Your task to perform on an android device: change the clock display to show seconds Image 0: 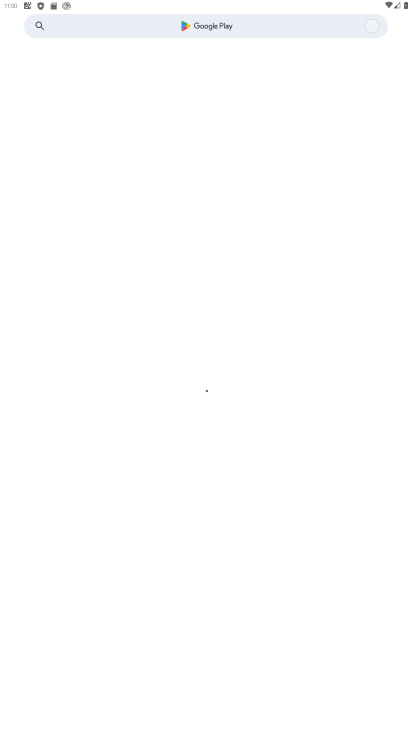
Step 0: press home button
Your task to perform on an android device: change the clock display to show seconds Image 1: 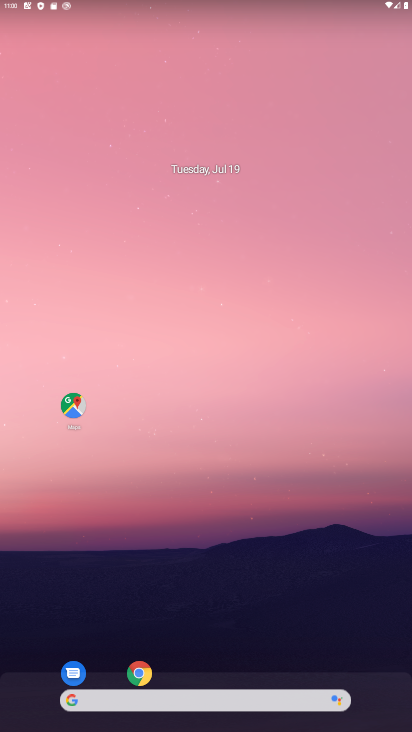
Step 1: drag from (264, 615) to (294, 102)
Your task to perform on an android device: change the clock display to show seconds Image 2: 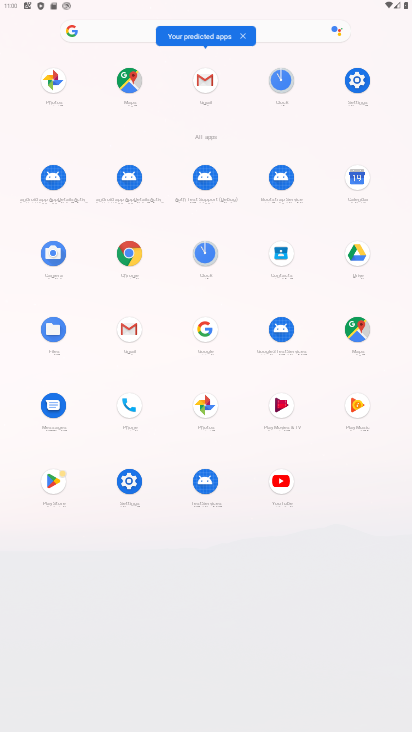
Step 2: click (205, 252)
Your task to perform on an android device: change the clock display to show seconds Image 3: 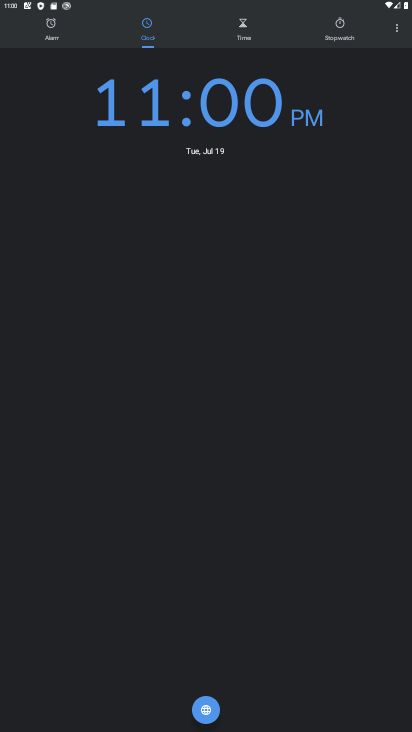
Step 3: click (396, 37)
Your task to perform on an android device: change the clock display to show seconds Image 4: 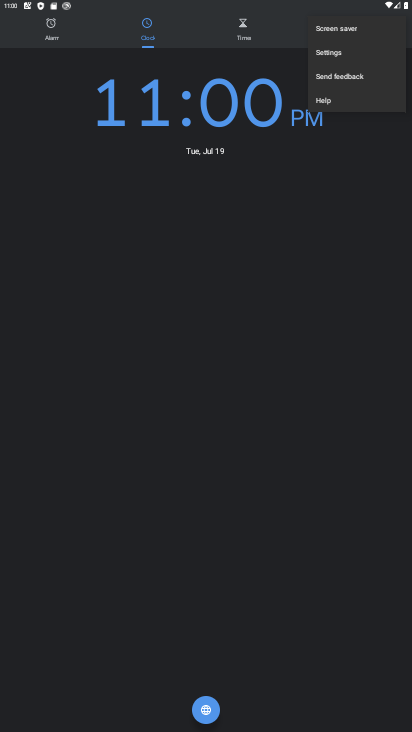
Step 4: click (334, 59)
Your task to perform on an android device: change the clock display to show seconds Image 5: 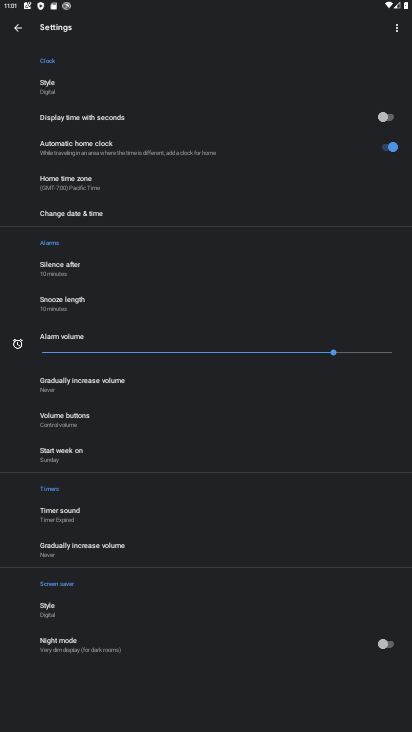
Step 5: click (384, 121)
Your task to perform on an android device: change the clock display to show seconds Image 6: 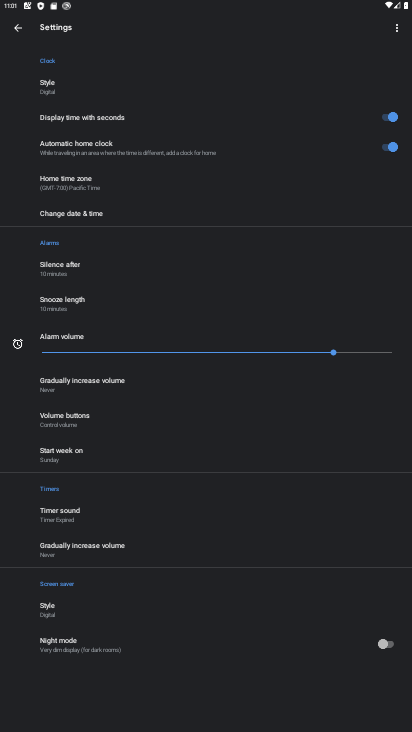
Step 6: task complete